Your task to perform on an android device: Go to internet settings Image 0: 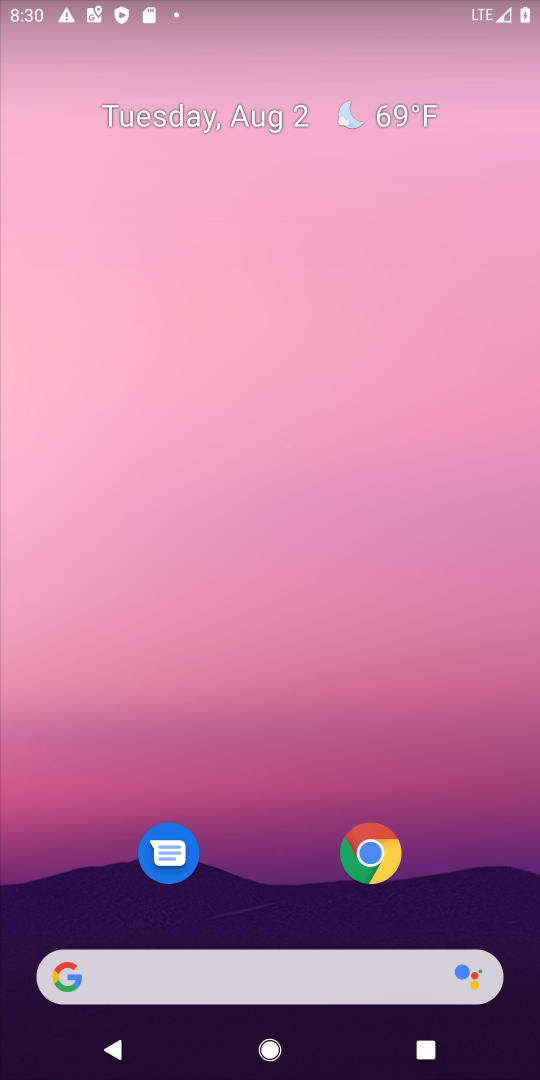
Step 0: drag from (304, 857) to (169, 213)
Your task to perform on an android device: Go to internet settings Image 1: 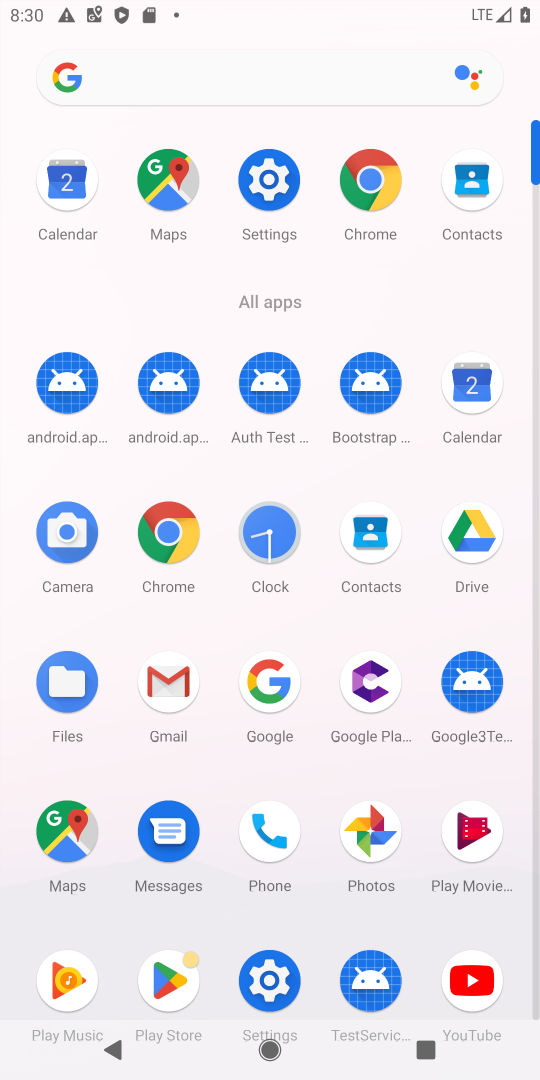
Step 1: click (271, 204)
Your task to perform on an android device: Go to internet settings Image 2: 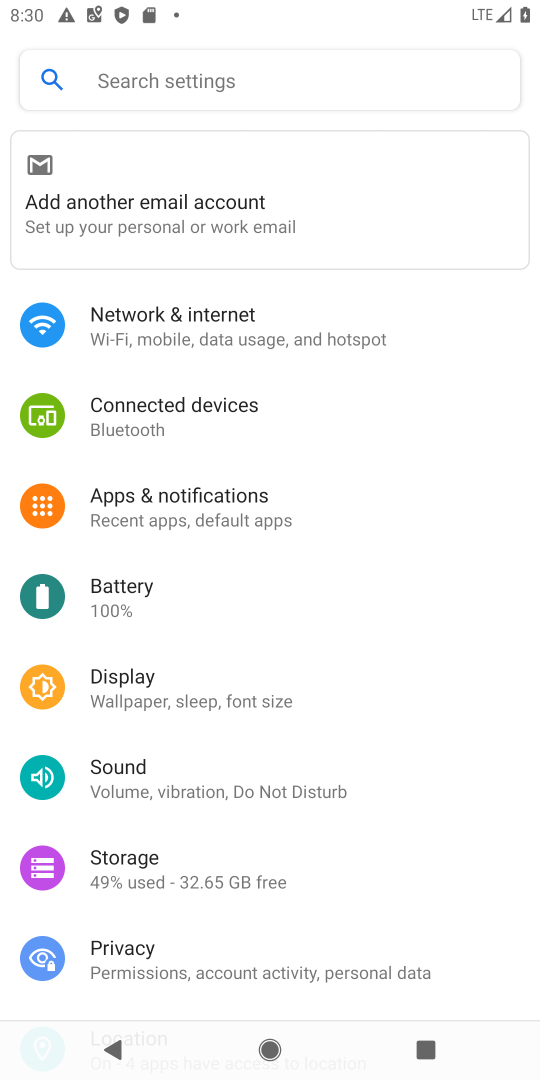
Step 2: click (235, 323)
Your task to perform on an android device: Go to internet settings Image 3: 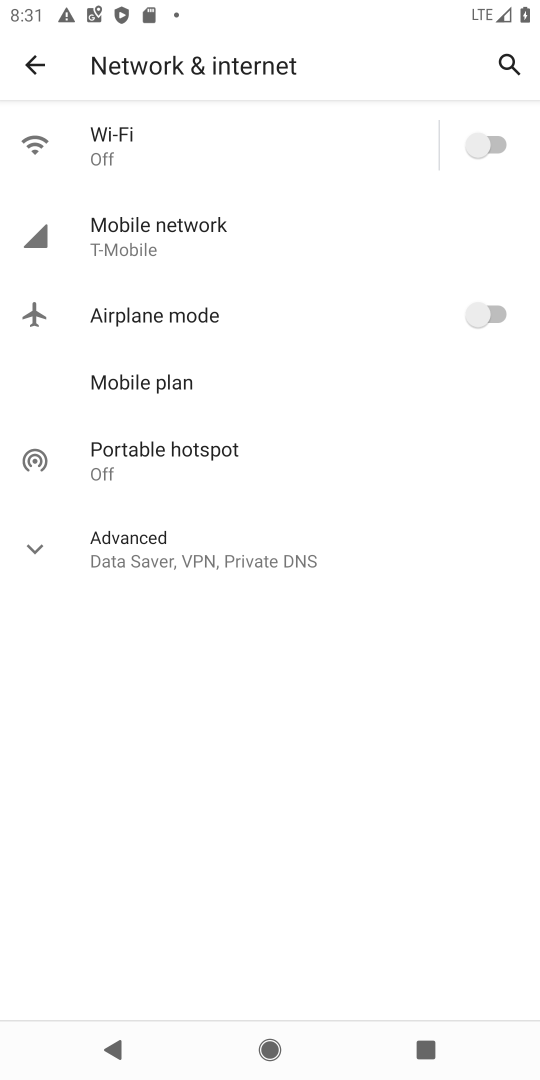
Step 3: task complete